Your task to perform on an android device: change the upload size in google photos Image 0: 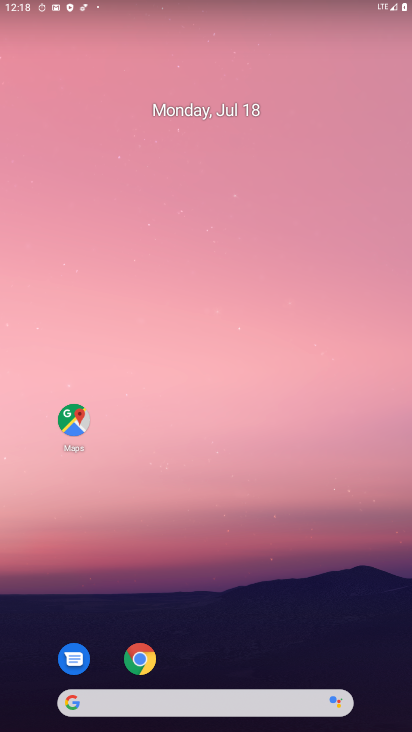
Step 0: drag from (198, 564) to (297, 46)
Your task to perform on an android device: change the upload size in google photos Image 1: 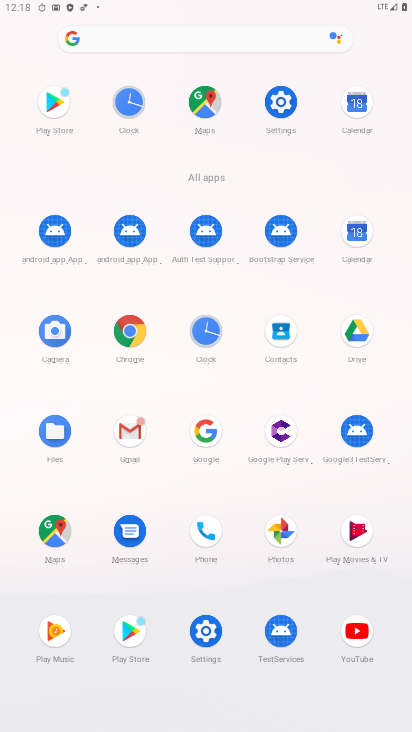
Step 1: click (291, 534)
Your task to perform on an android device: change the upload size in google photos Image 2: 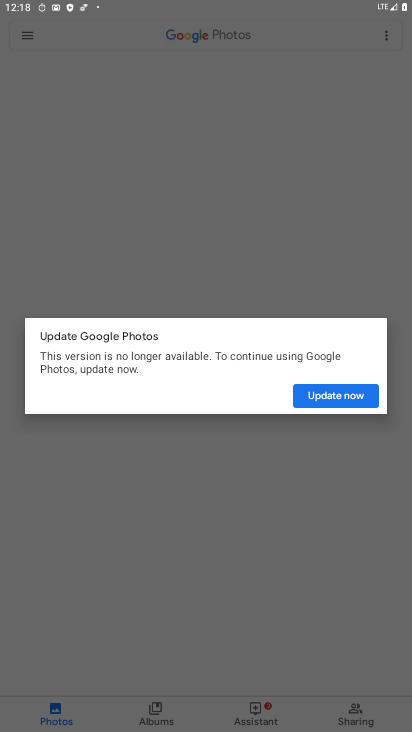
Step 2: click (323, 394)
Your task to perform on an android device: change the upload size in google photos Image 3: 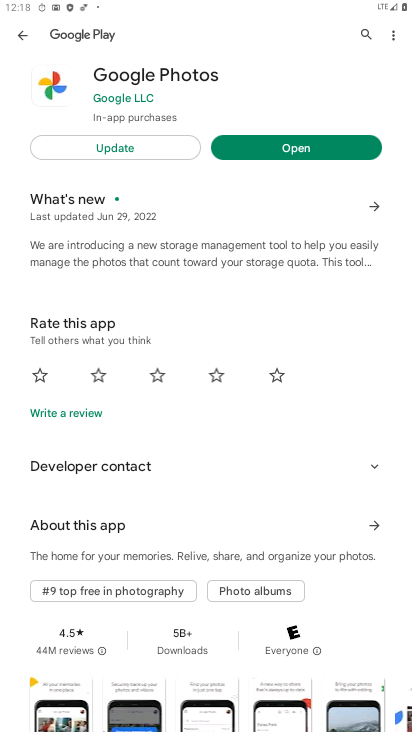
Step 3: click (280, 141)
Your task to perform on an android device: change the upload size in google photos Image 4: 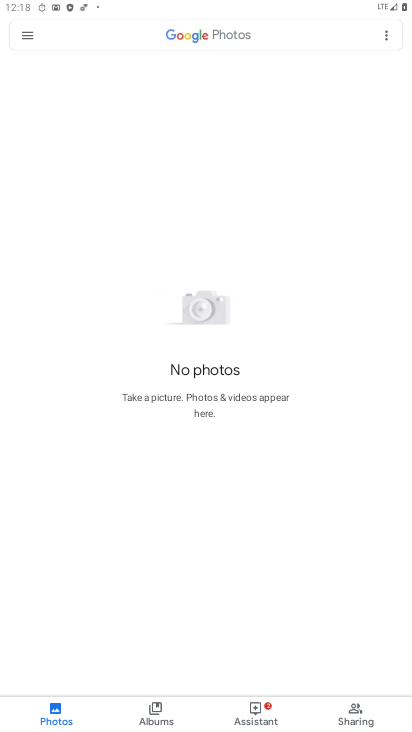
Step 4: click (22, 25)
Your task to perform on an android device: change the upload size in google photos Image 5: 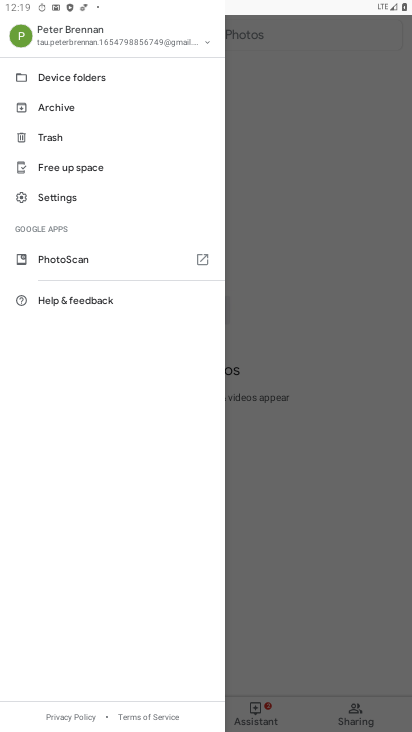
Step 5: click (51, 200)
Your task to perform on an android device: change the upload size in google photos Image 6: 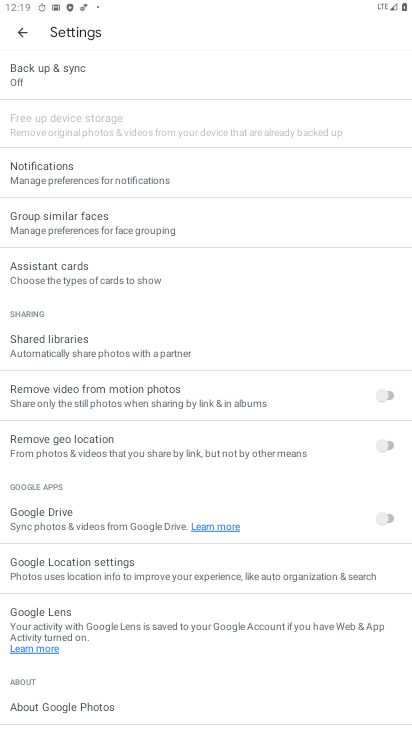
Step 6: click (75, 75)
Your task to perform on an android device: change the upload size in google photos Image 7: 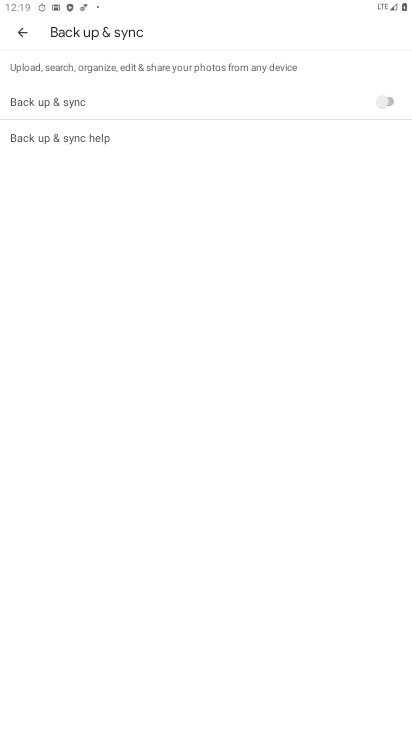
Step 7: click (349, 110)
Your task to perform on an android device: change the upload size in google photos Image 8: 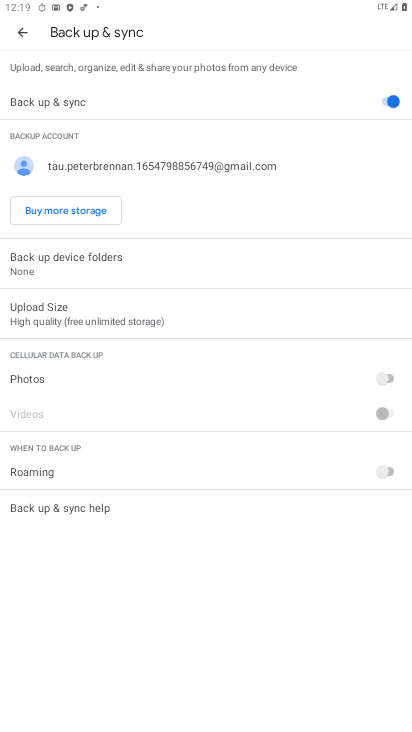
Step 8: click (93, 315)
Your task to perform on an android device: change the upload size in google photos Image 9: 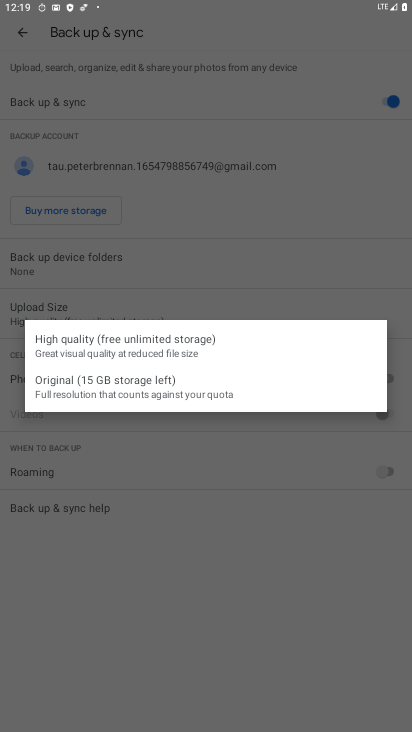
Step 9: click (84, 387)
Your task to perform on an android device: change the upload size in google photos Image 10: 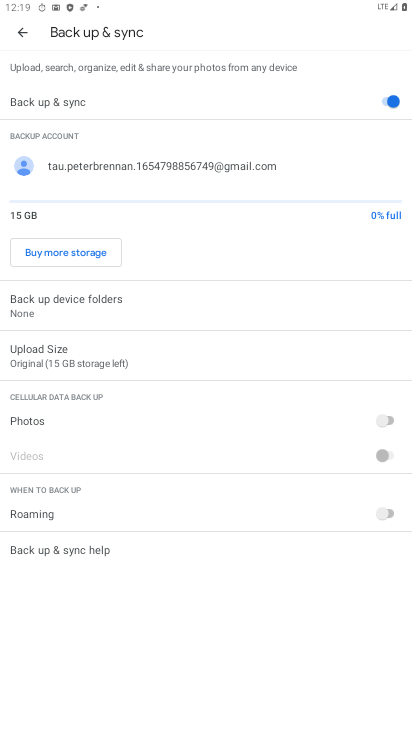
Step 10: task complete